Your task to perform on an android device: What's the weather like in Seoul? Image 0: 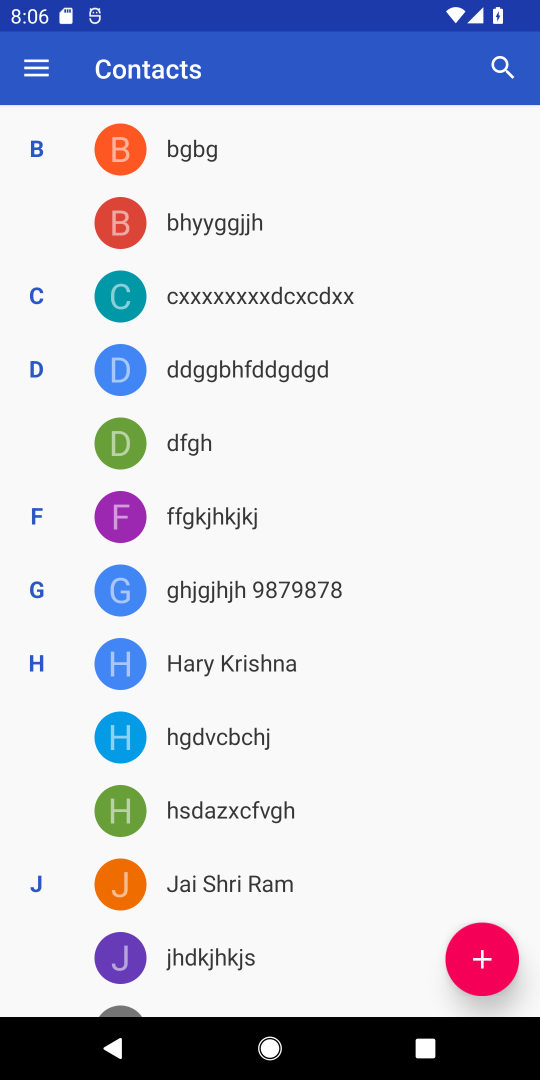
Step 0: press home button
Your task to perform on an android device: What's the weather like in Seoul? Image 1: 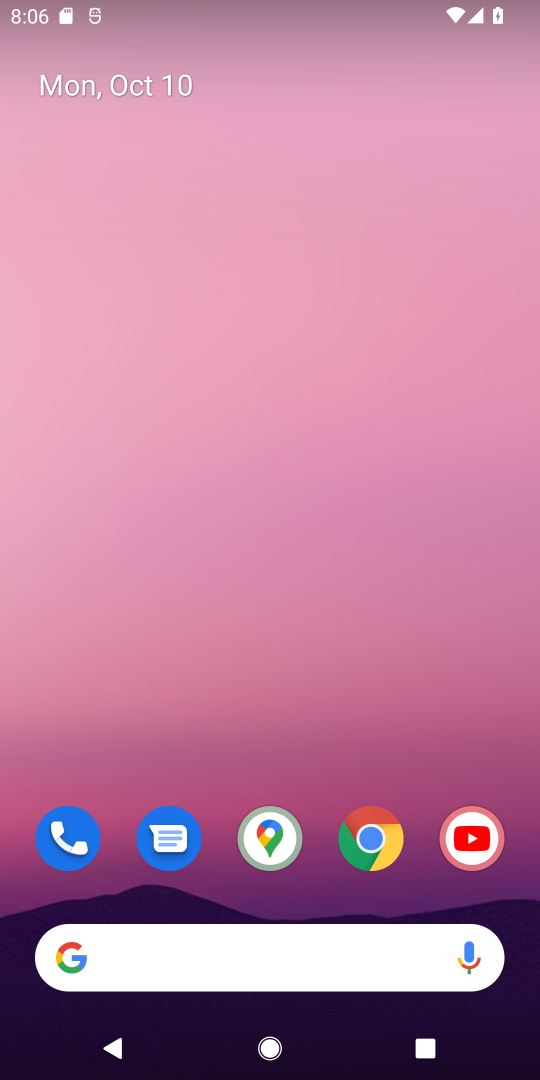
Step 1: click (374, 833)
Your task to perform on an android device: What's the weather like in Seoul? Image 2: 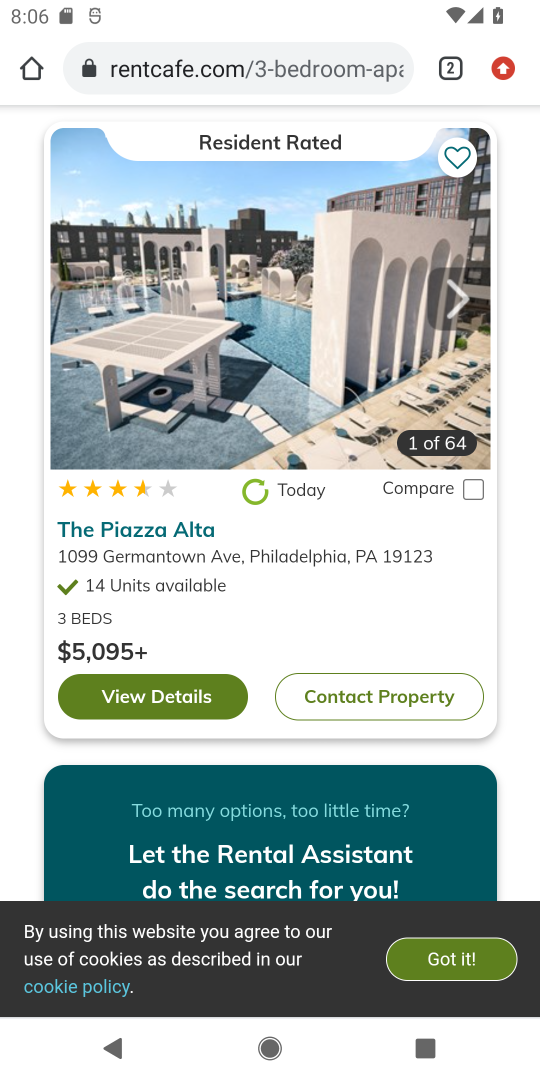
Step 2: click (215, 46)
Your task to perform on an android device: What's the weather like in Seoul? Image 3: 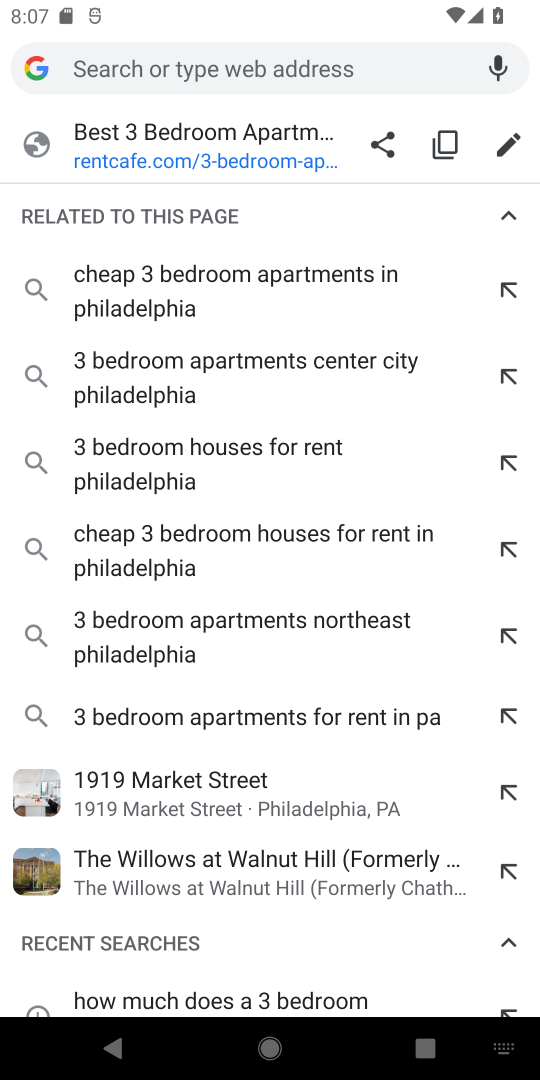
Step 3: type " weather like in Seoul?"
Your task to perform on an android device: What's the weather like in Seoul? Image 4: 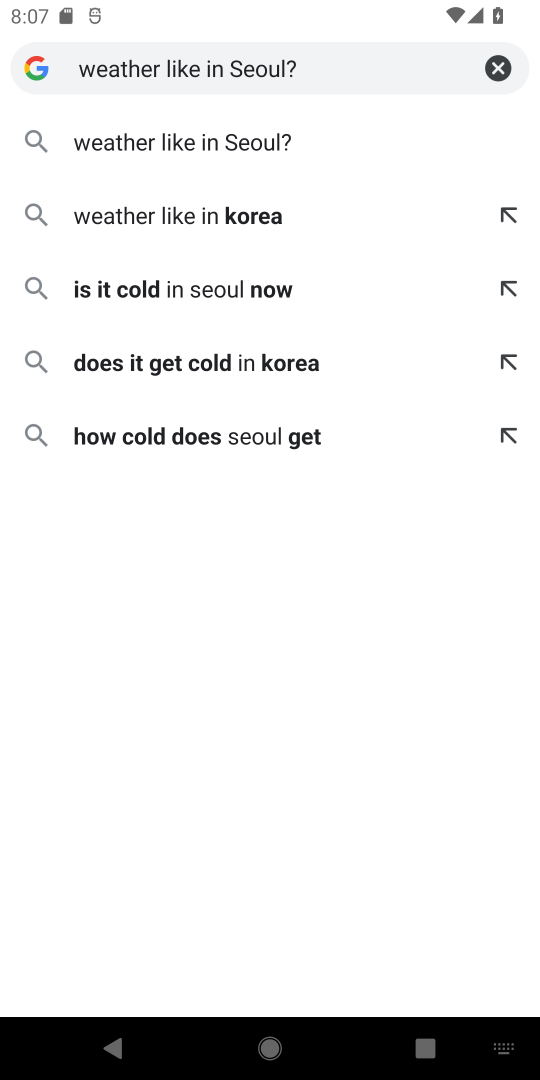
Step 4: click (149, 138)
Your task to perform on an android device: What's the weather like in Seoul? Image 5: 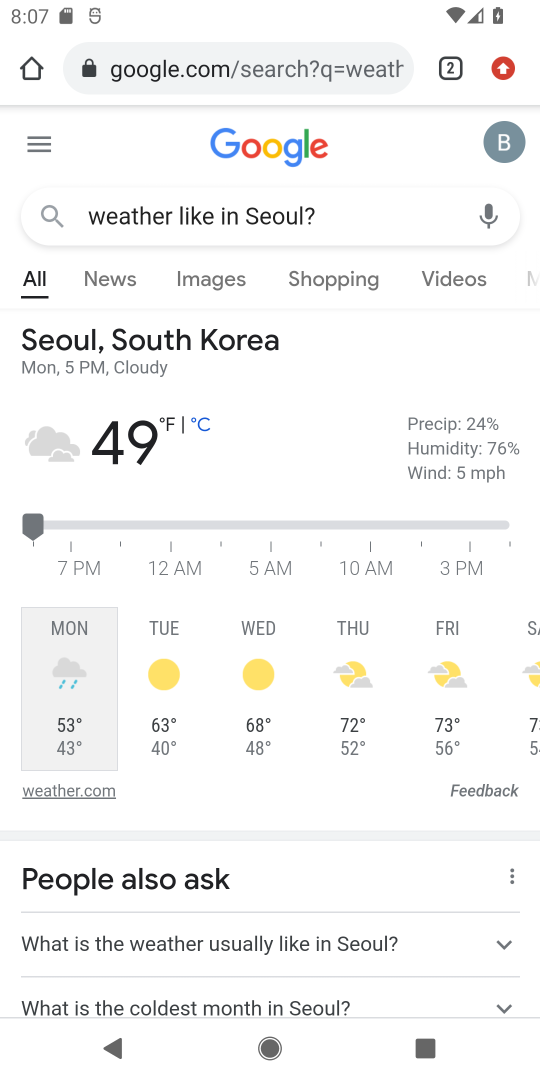
Step 5: task complete